Your task to perform on an android device: Go to wifi settings Image 0: 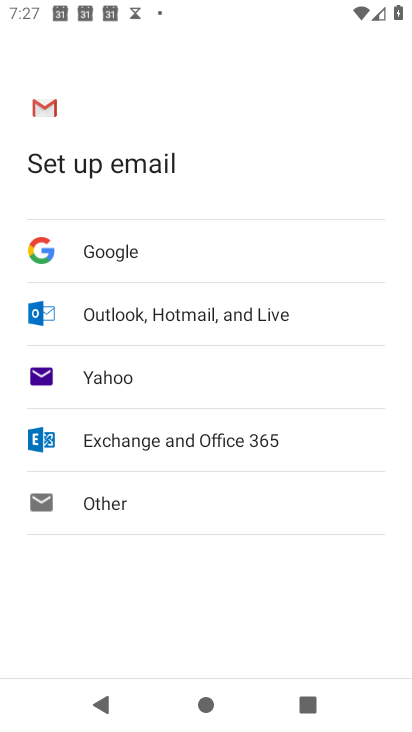
Step 0: press home button
Your task to perform on an android device: Go to wifi settings Image 1: 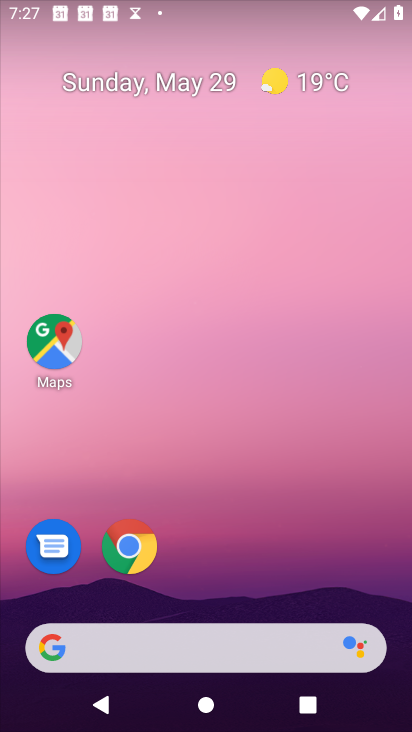
Step 1: drag from (199, 606) to (293, 86)
Your task to perform on an android device: Go to wifi settings Image 2: 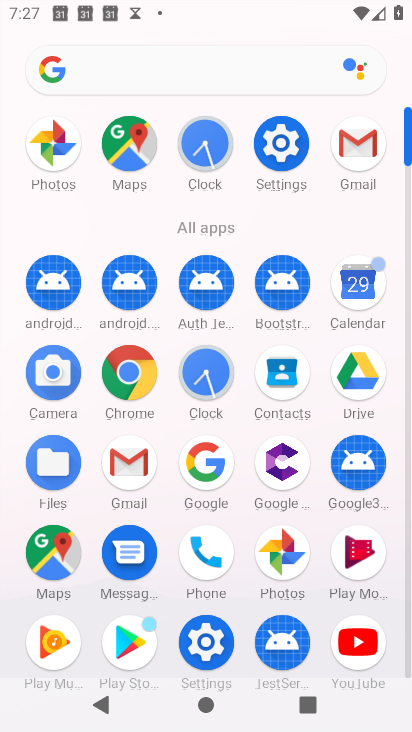
Step 2: click (286, 156)
Your task to perform on an android device: Go to wifi settings Image 3: 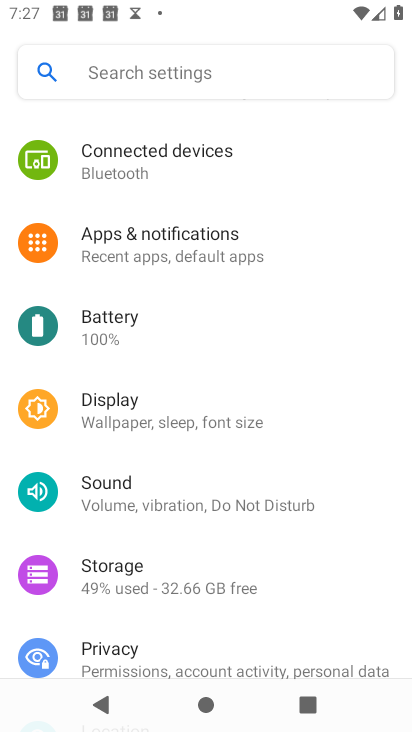
Step 3: drag from (192, 259) to (166, 548)
Your task to perform on an android device: Go to wifi settings Image 4: 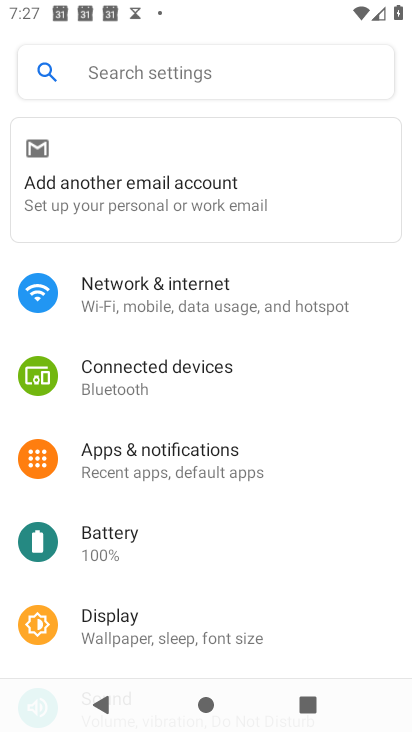
Step 4: click (160, 292)
Your task to perform on an android device: Go to wifi settings Image 5: 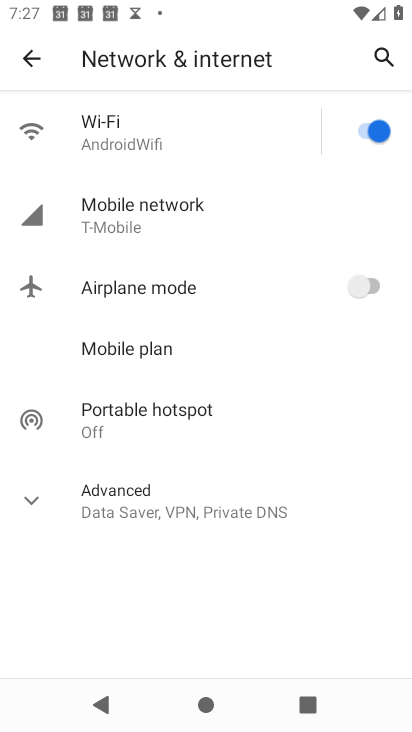
Step 5: click (130, 138)
Your task to perform on an android device: Go to wifi settings Image 6: 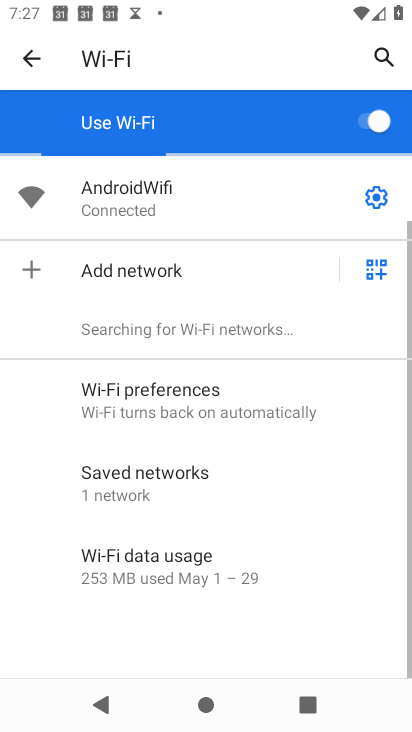
Step 6: task complete